Your task to perform on an android device: Open the stopwatch Image 0: 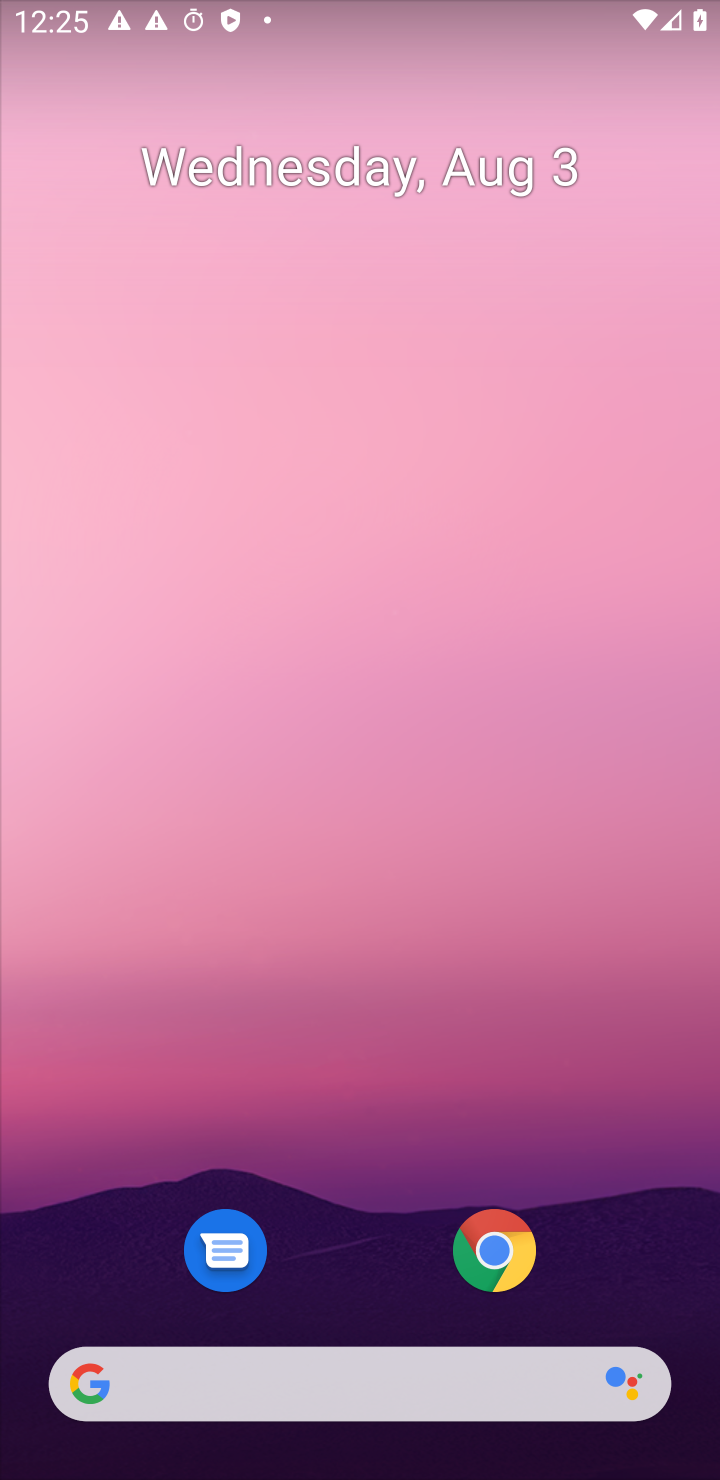
Step 0: drag from (335, 1198) to (486, 5)
Your task to perform on an android device: Open the stopwatch Image 1: 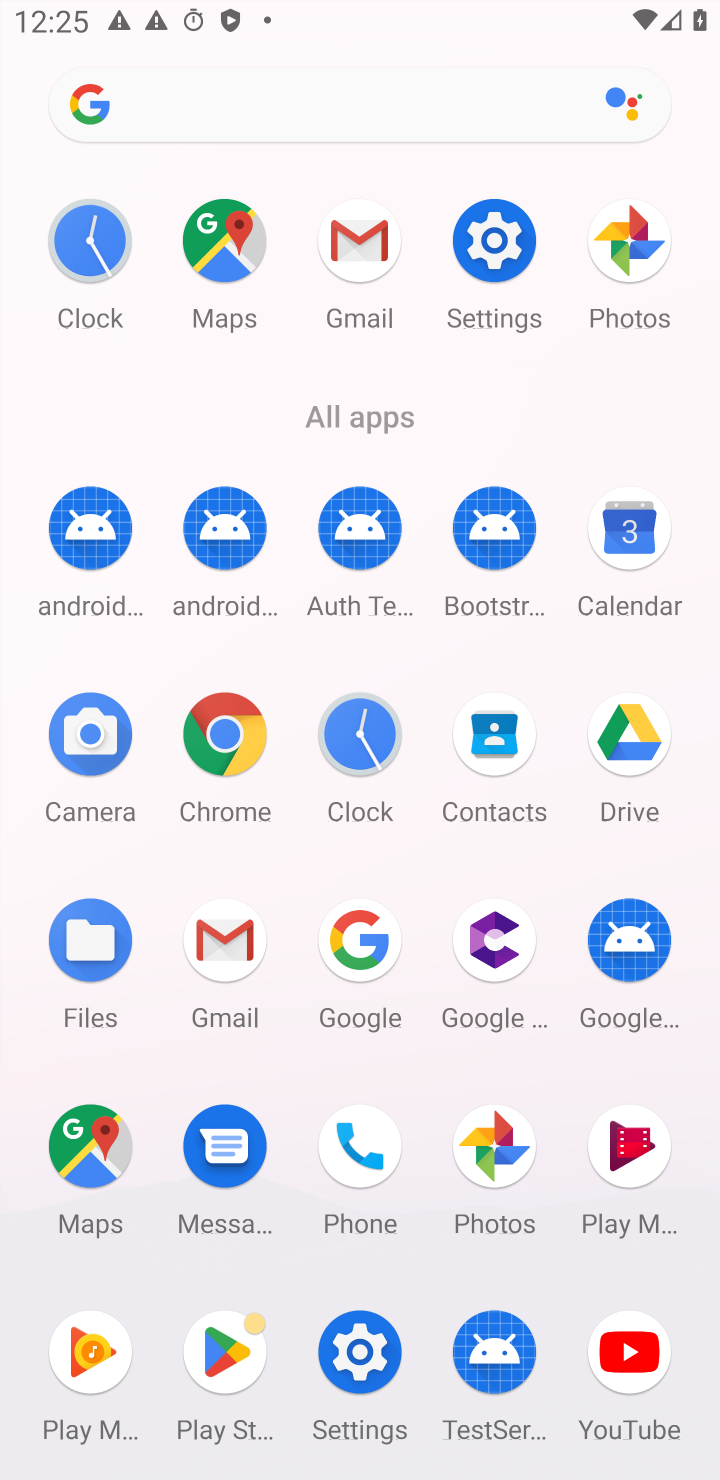
Step 1: click (356, 733)
Your task to perform on an android device: Open the stopwatch Image 2: 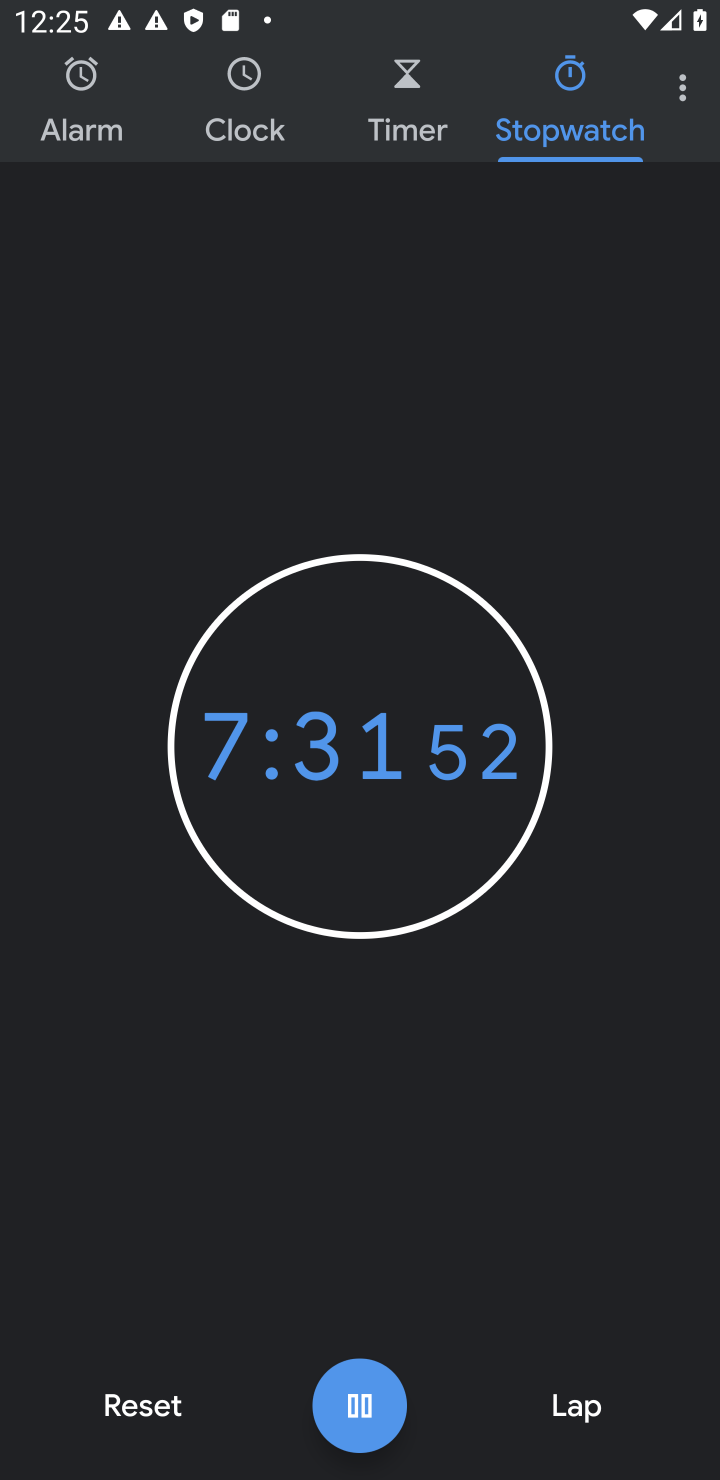
Step 2: task complete